Your task to perform on an android device: delete the emails in spam in the gmail app Image 0: 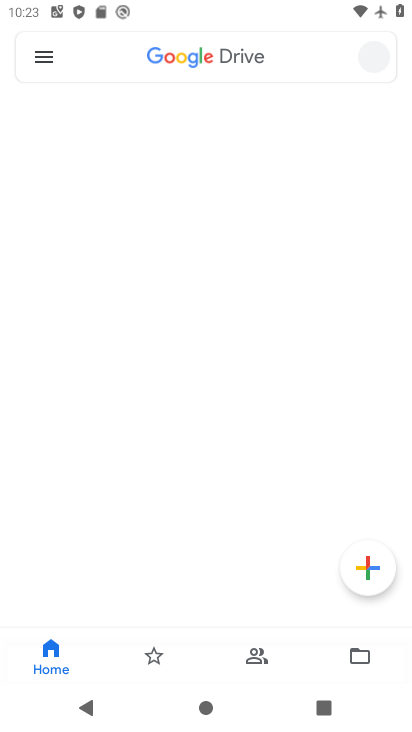
Step 0: press home button
Your task to perform on an android device: delete the emails in spam in the gmail app Image 1: 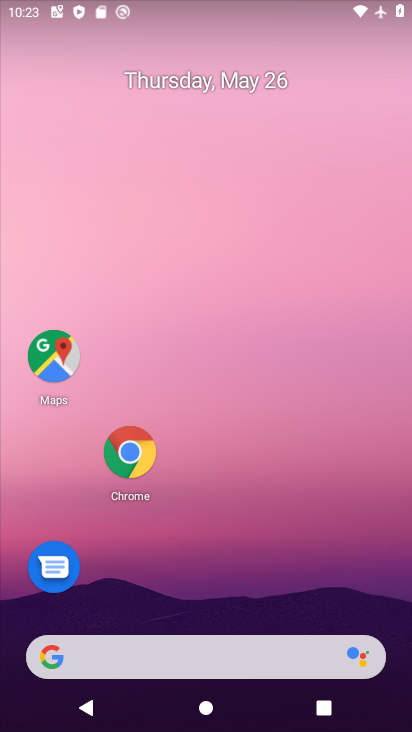
Step 1: drag from (205, 657) to (280, 92)
Your task to perform on an android device: delete the emails in spam in the gmail app Image 2: 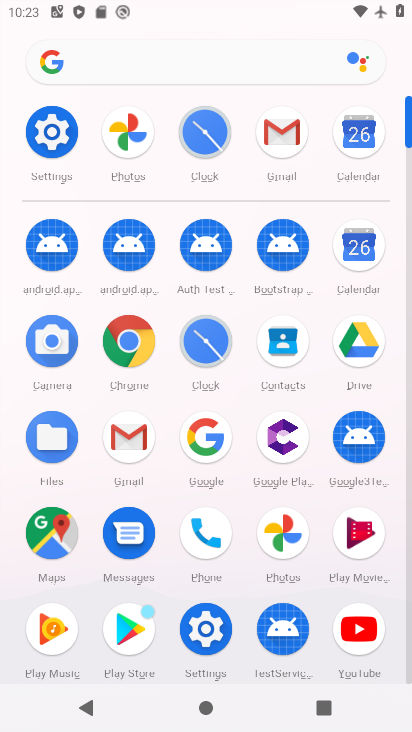
Step 2: click (287, 141)
Your task to perform on an android device: delete the emails in spam in the gmail app Image 3: 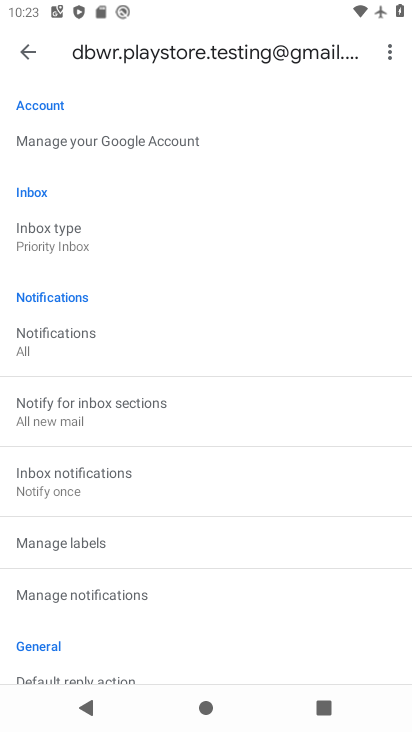
Step 3: click (22, 48)
Your task to perform on an android device: delete the emails in spam in the gmail app Image 4: 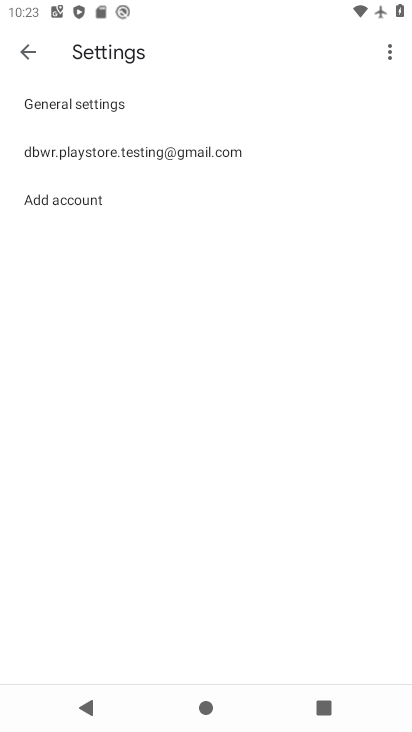
Step 4: click (22, 48)
Your task to perform on an android device: delete the emails in spam in the gmail app Image 5: 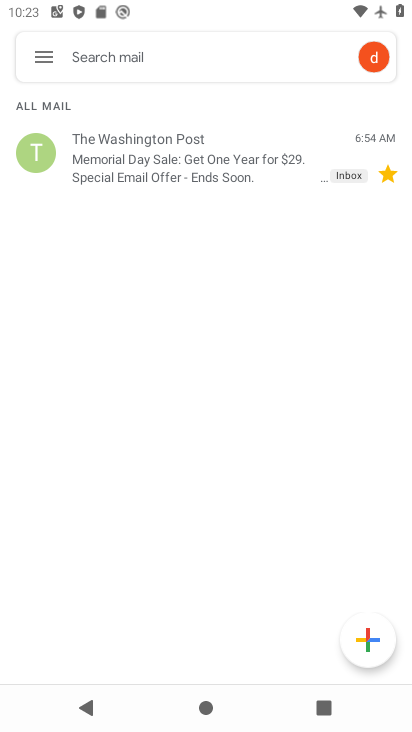
Step 5: click (45, 54)
Your task to perform on an android device: delete the emails in spam in the gmail app Image 6: 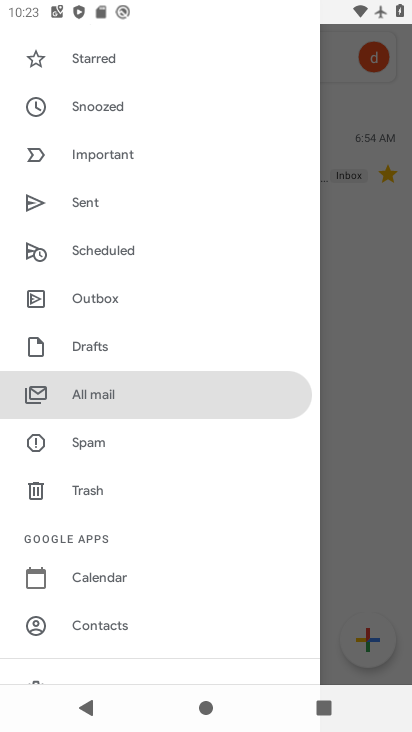
Step 6: click (98, 439)
Your task to perform on an android device: delete the emails in spam in the gmail app Image 7: 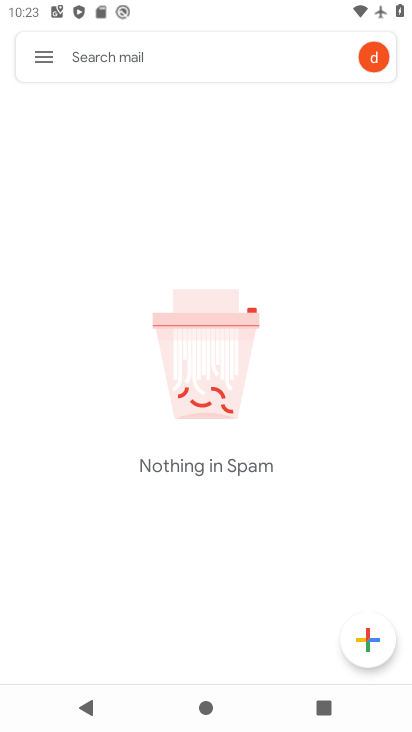
Step 7: task complete